Your task to perform on an android device: see sites visited before in the chrome app Image 0: 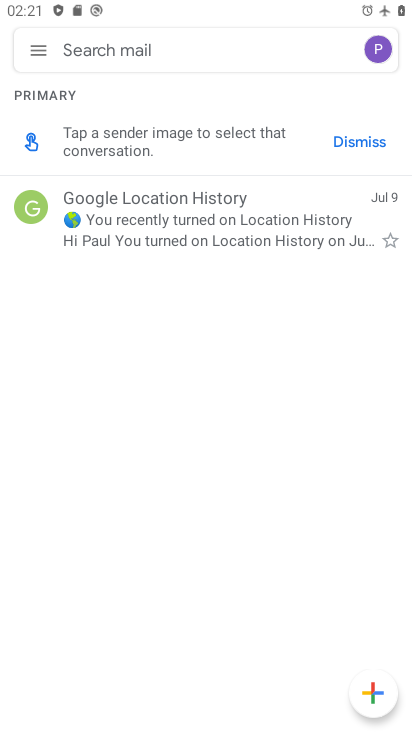
Step 0: press home button
Your task to perform on an android device: see sites visited before in the chrome app Image 1: 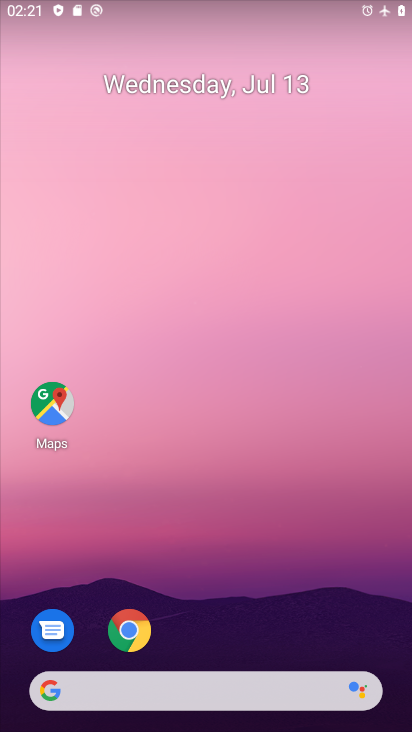
Step 1: click (137, 628)
Your task to perform on an android device: see sites visited before in the chrome app Image 2: 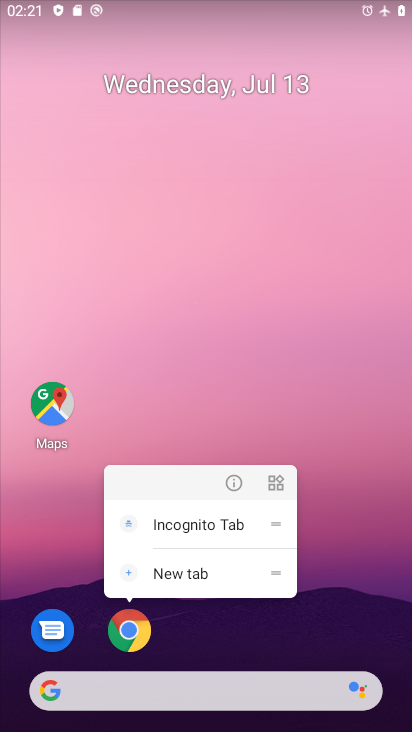
Step 2: click (139, 633)
Your task to perform on an android device: see sites visited before in the chrome app Image 3: 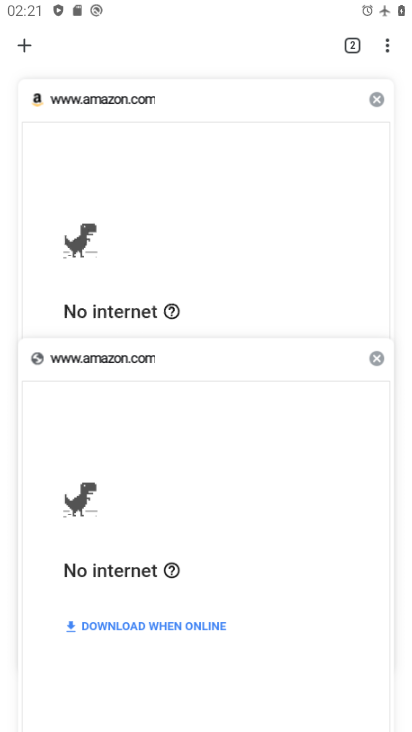
Step 3: click (390, 50)
Your task to perform on an android device: see sites visited before in the chrome app Image 4: 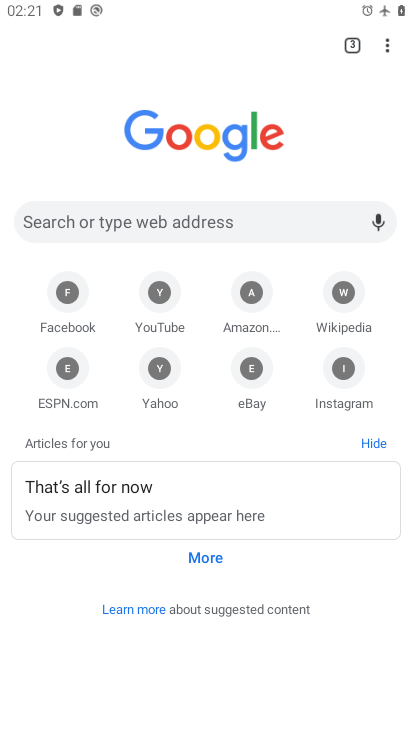
Step 4: task complete